Your task to perform on an android device: Open calendar and show me the first week of next month Image 0: 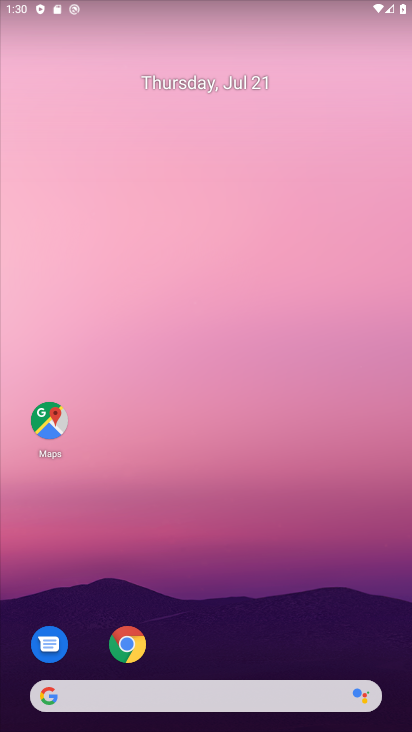
Step 0: drag from (278, 609) to (278, 99)
Your task to perform on an android device: Open calendar and show me the first week of next month Image 1: 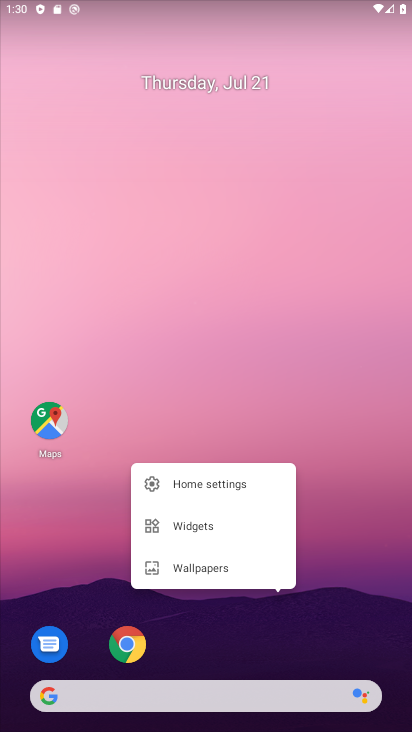
Step 1: click (294, 326)
Your task to perform on an android device: Open calendar and show me the first week of next month Image 2: 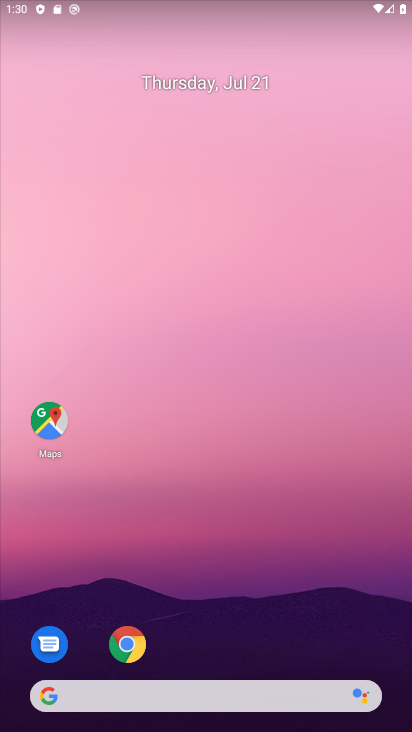
Step 2: drag from (264, 637) to (280, 140)
Your task to perform on an android device: Open calendar and show me the first week of next month Image 3: 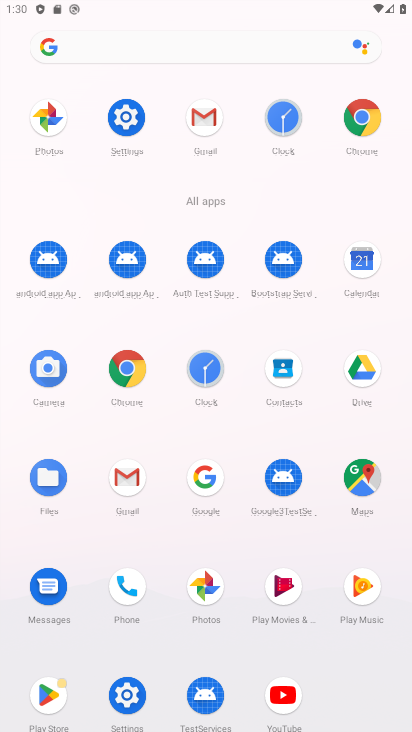
Step 3: click (367, 268)
Your task to perform on an android device: Open calendar and show me the first week of next month Image 4: 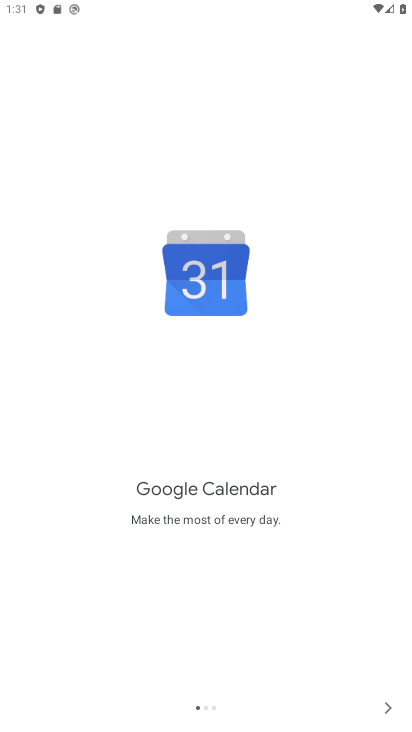
Step 4: click (388, 701)
Your task to perform on an android device: Open calendar and show me the first week of next month Image 5: 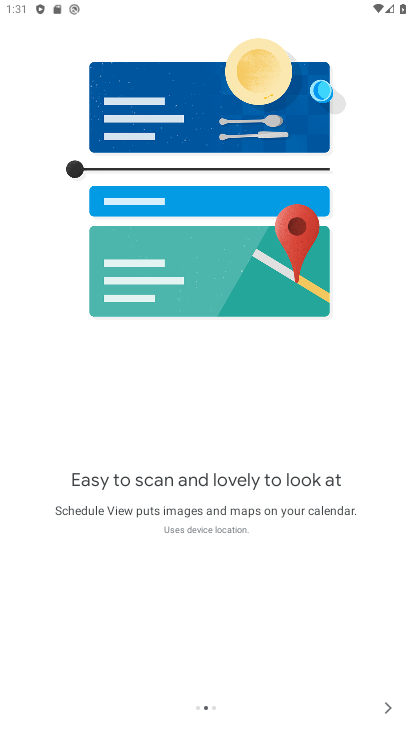
Step 5: click (390, 711)
Your task to perform on an android device: Open calendar and show me the first week of next month Image 6: 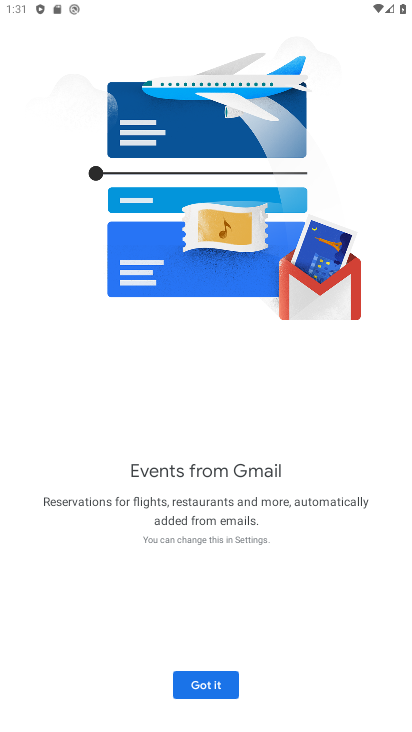
Step 6: click (195, 676)
Your task to perform on an android device: Open calendar and show me the first week of next month Image 7: 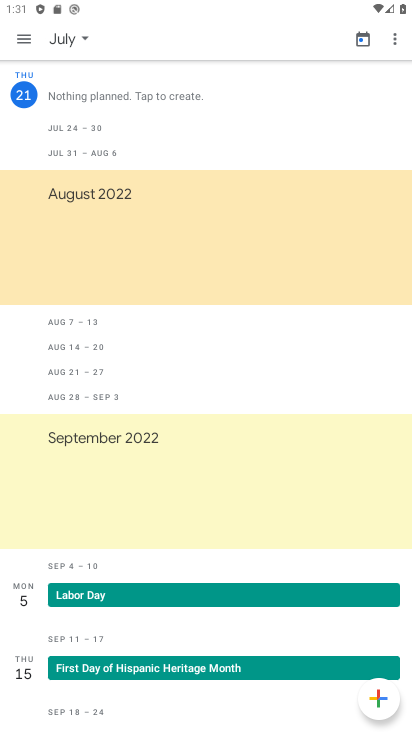
Step 7: click (75, 38)
Your task to perform on an android device: Open calendar and show me the first week of next month Image 8: 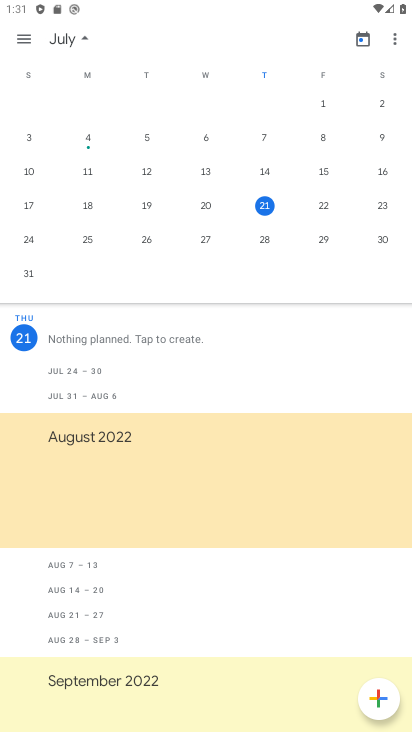
Step 8: task complete